Your task to perform on an android device: toggle airplane mode Image 0: 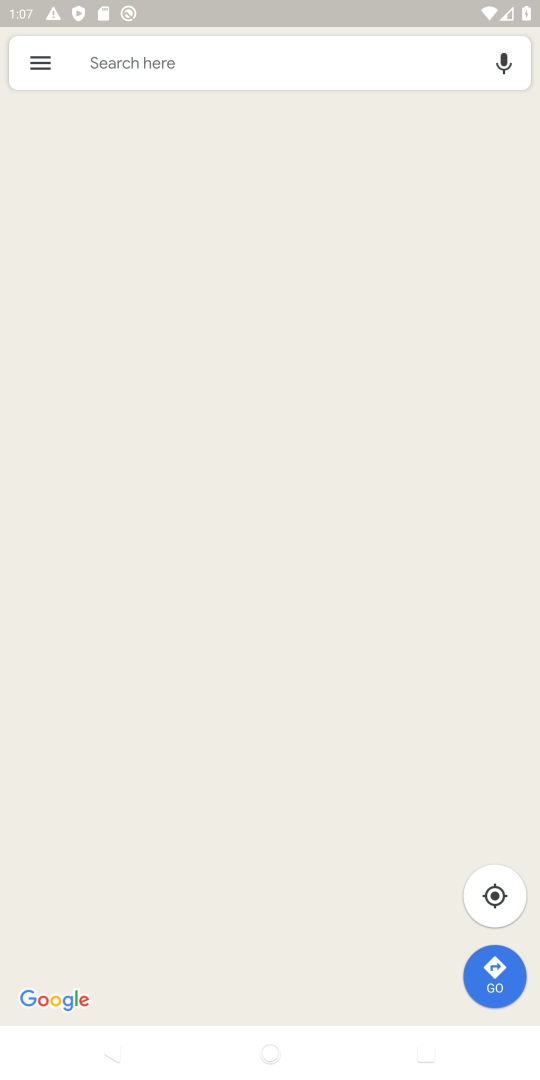
Step 0: press home button
Your task to perform on an android device: toggle airplane mode Image 1: 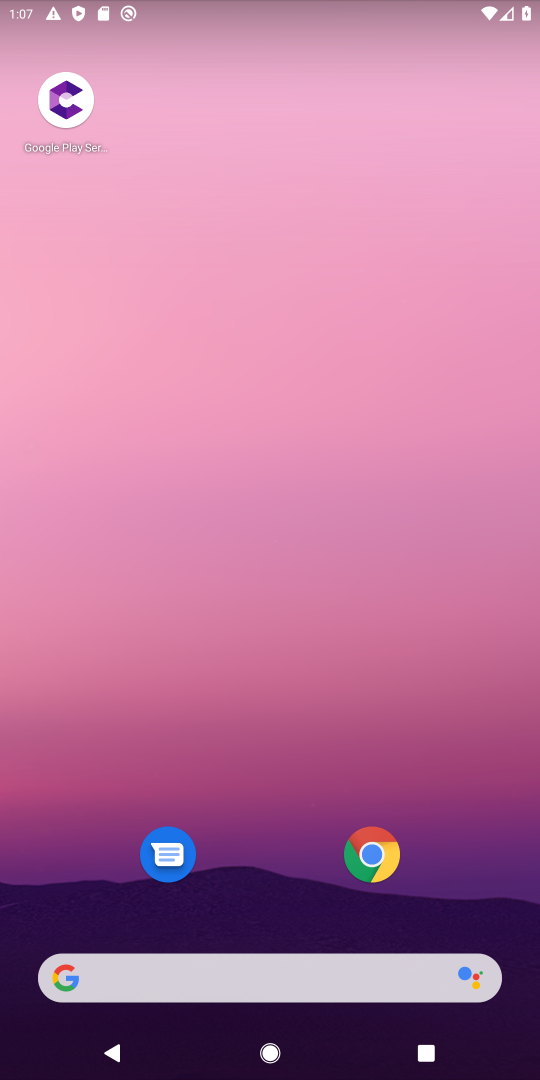
Step 1: drag from (75, 1058) to (352, 363)
Your task to perform on an android device: toggle airplane mode Image 2: 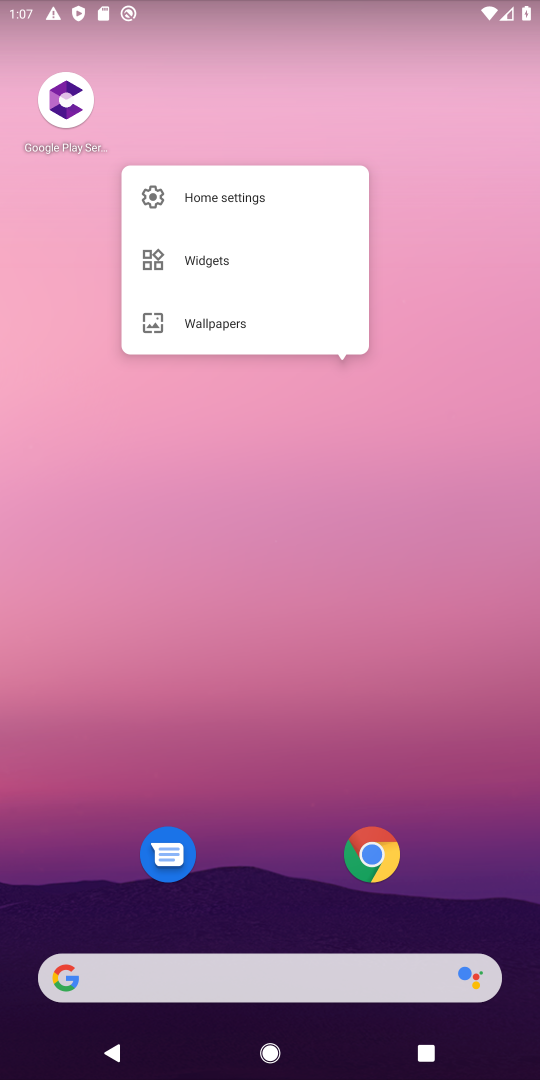
Step 2: drag from (32, 1028) to (366, 200)
Your task to perform on an android device: toggle airplane mode Image 3: 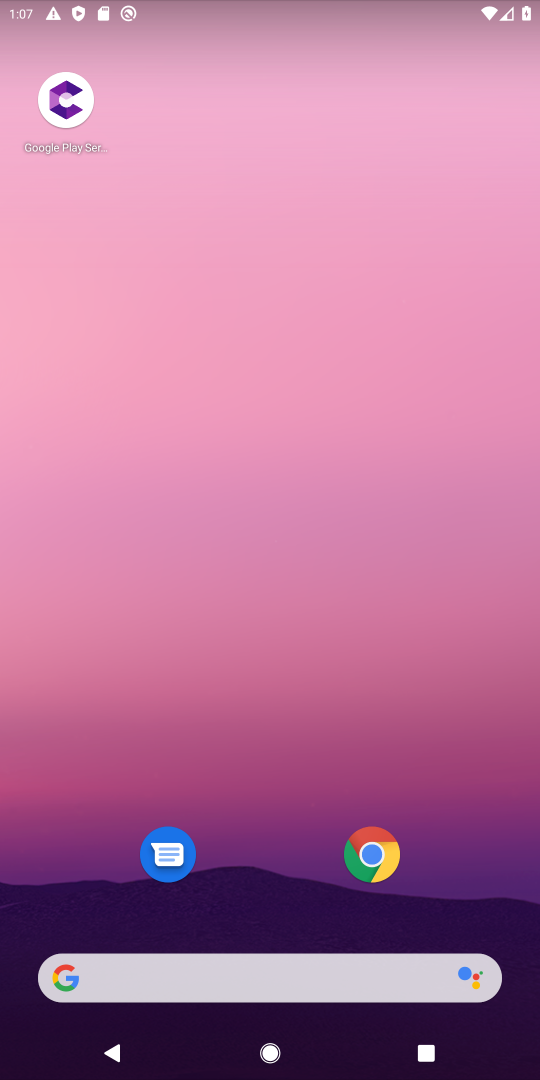
Step 3: click (289, 292)
Your task to perform on an android device: toggle airplane mode Image 4: 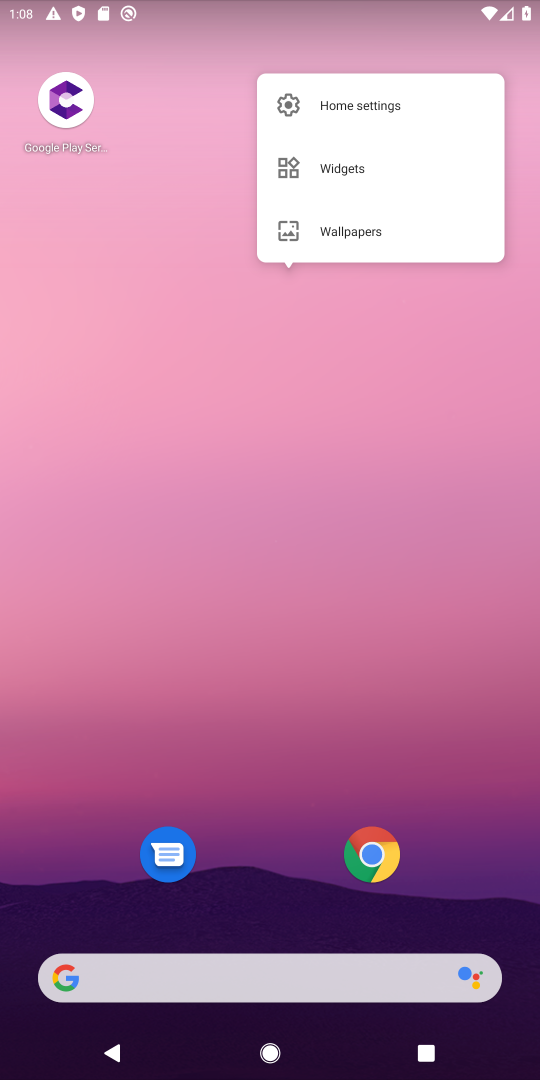
Step 4: task complete